Your task to perform on an android device: star an email in the gmail app Image 0: 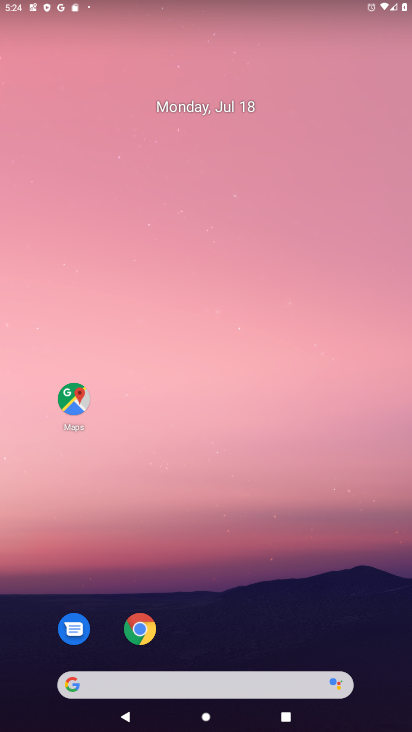
Step 0: drag from (308, 558) to (307, 80)
Your task to perform on an android device: star an email in the gmail app Image 1: 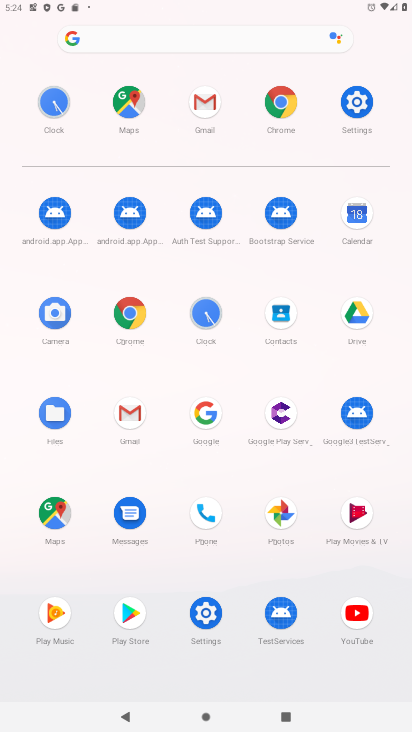
Step 1: click (215, 100)
Your task to perform on an android device: star an email in the gmail app Image 2: 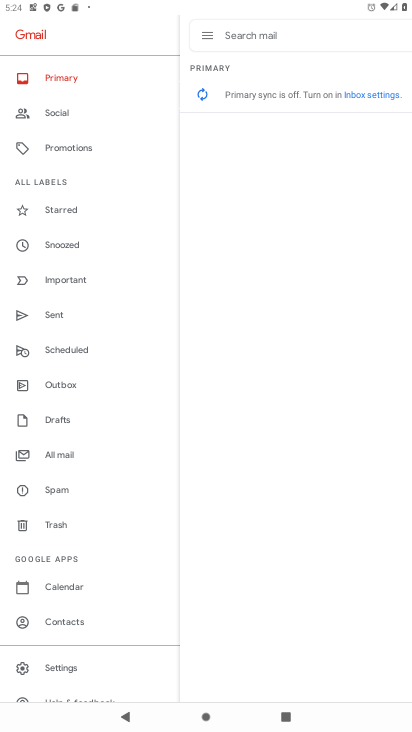
Step 2: click (49, 458)
Your task to perform on an android device: star an email in the gmail app Image 3: 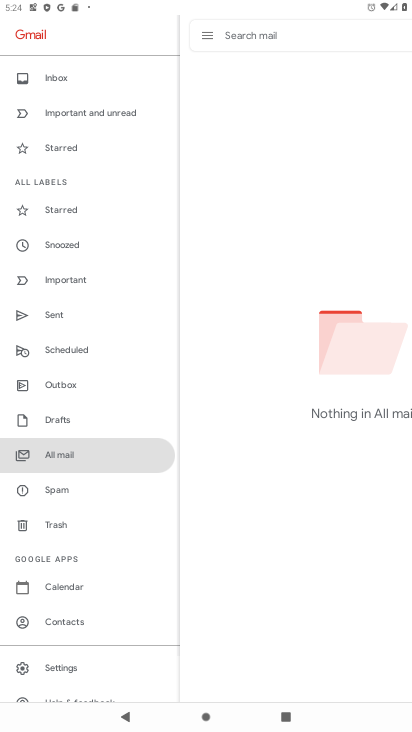
Step 3: task complete